Your task to perform on an android device: delete a single message in the gmail app Image 0: 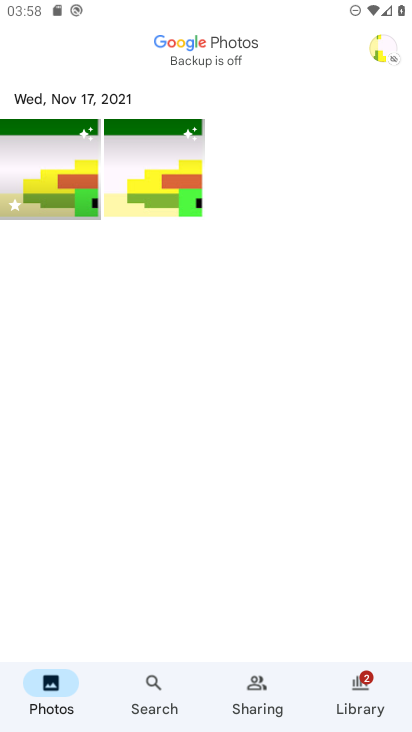
Step 0: press home button
Your task to perform on an android device: delete a single message in the gmail app Image 1: 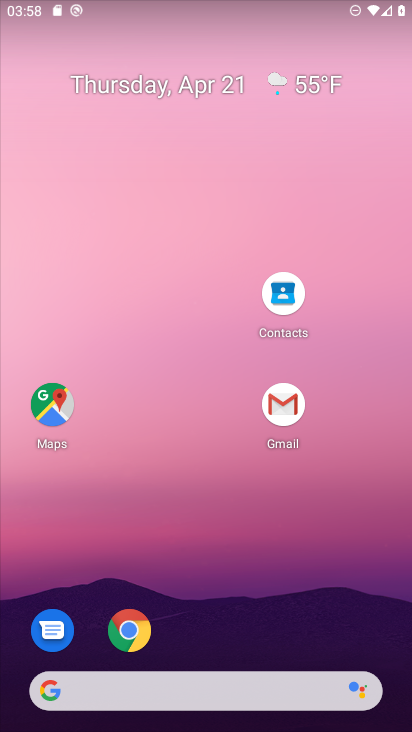
Step 1: click (270, 440)
Your task to perform on an android device: delete a single message in the gmail app Image 2: 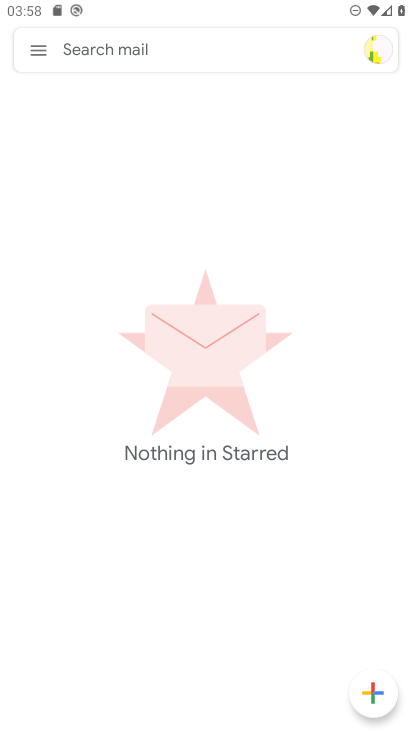
Step 2: click (35, 54)
Your task to perform on an android device: delete a single message in the gmail app Image 3: 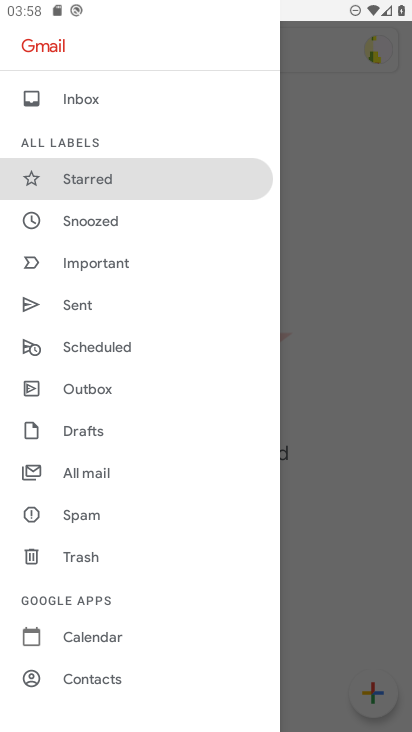
Step 3: click (108, 473)
Your task to perform on an android device: delete a single message in the gmail app Image 4: 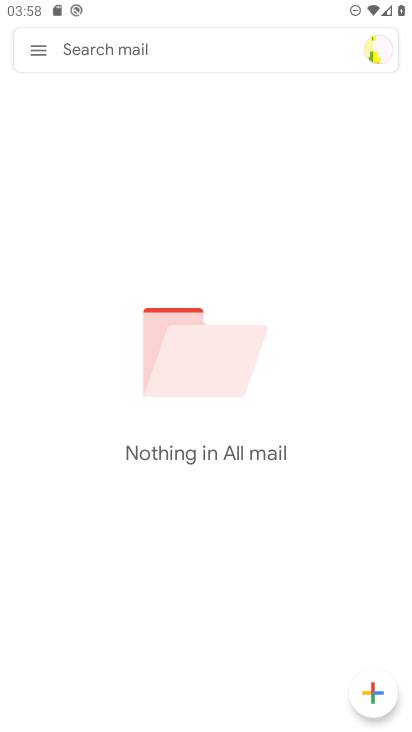
Step 4: task complete